Your task to perform on an android device: find snoozed emails in the gmail app Image 0: 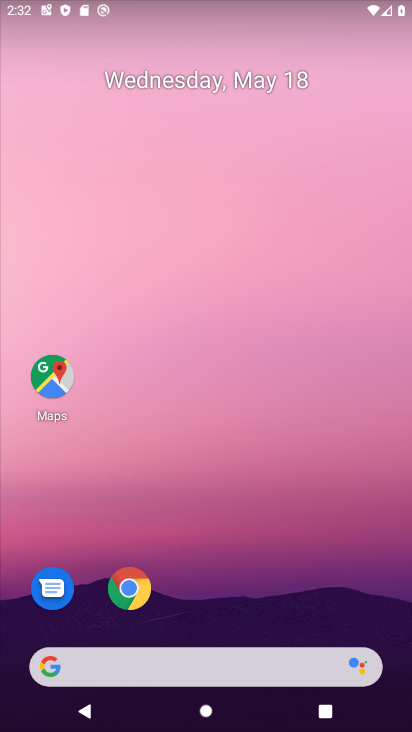
Step 0: drag from (344, 627) to (323, 145)
Your task to perform on an android device: find snoozed emails in the gmail app Image 1: 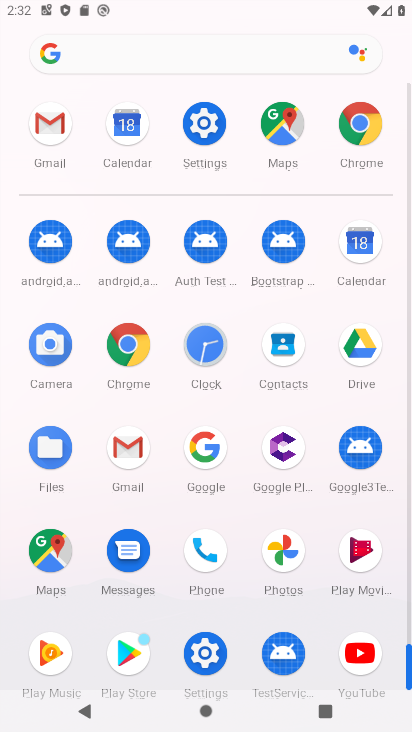
Step 1: click (125, 453)
Your task to perform on an android device: find snoozed emails in the gmail app Image 2: 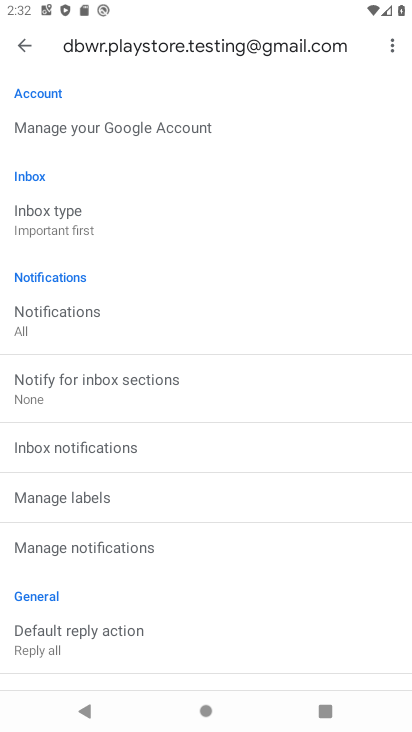
Step 2: drag from (332, 584) to (317, 388)
Your task to perform on an android device: find snoozed emails in the gmail app Image 3: 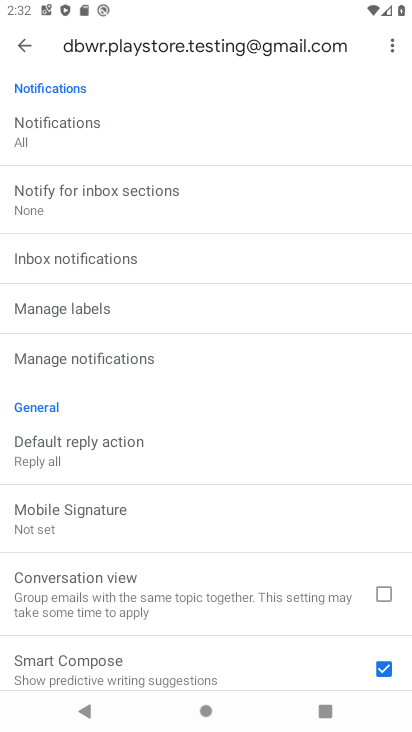
Step 3: drag from (293, 614) to (301, 376)
Your task to perform on an android device: find snoozed emails in the gmail app Image 4: 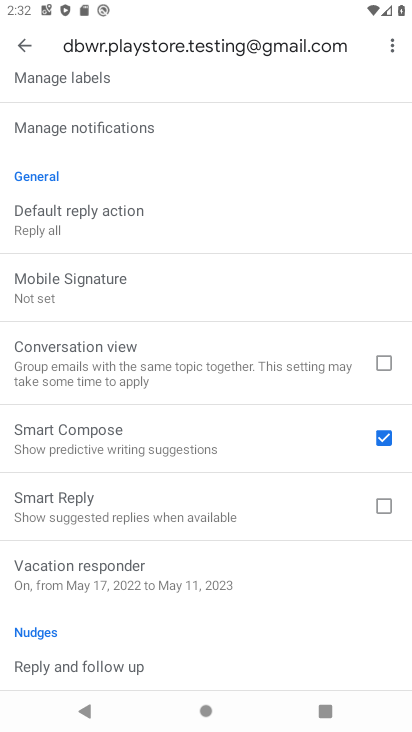
Step 4: drag from (273, 586) to (289, 420)
Your task to perform on an android device: find snoozed emails in the gmail app Image 5: 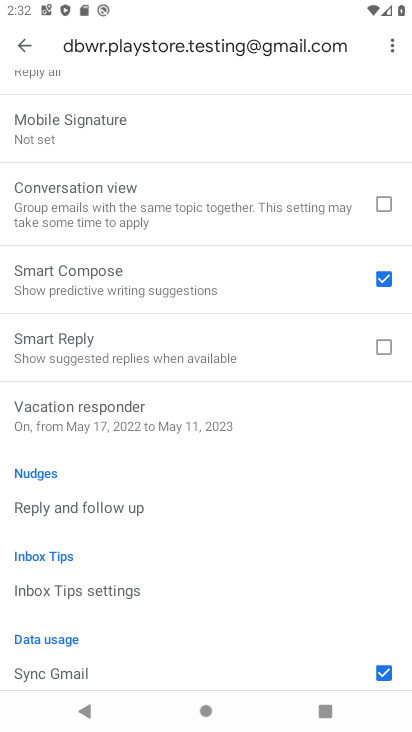
Step 5: drag from (283, 595) to (303, 415)
Your task to perform on an android device: find snoozed emails in the gmail app Image 6: 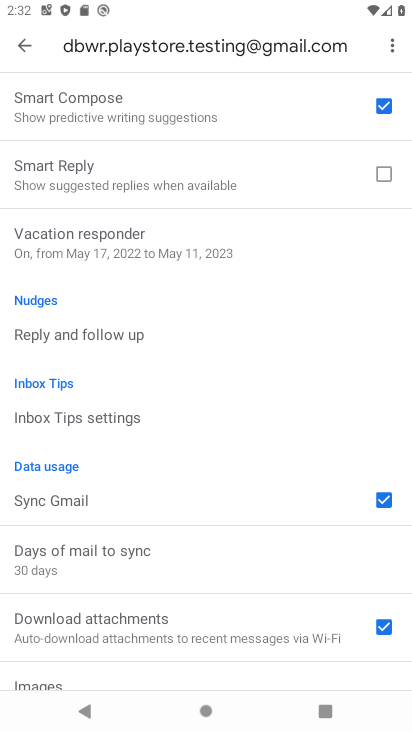
Step 6: drag from (281, 588) to (280, 417)
Your task to perform on an android device: find snoozed emails in the gmail app Image 7: 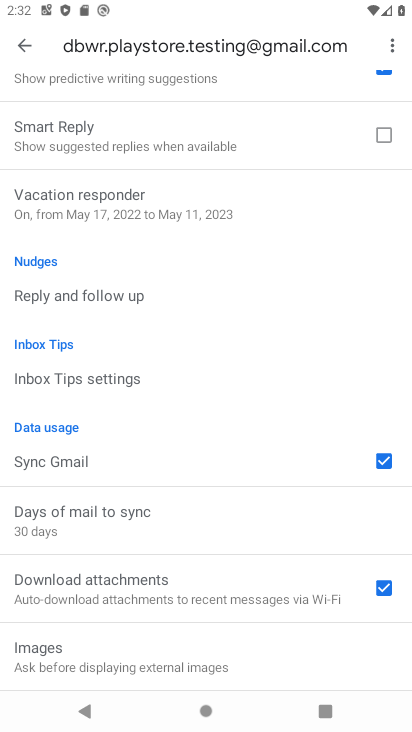
Step 7: drag from (297, 578) to (285, 428)
Your task to perform on an android device: find snoozed emails in the gmail app Image 8: 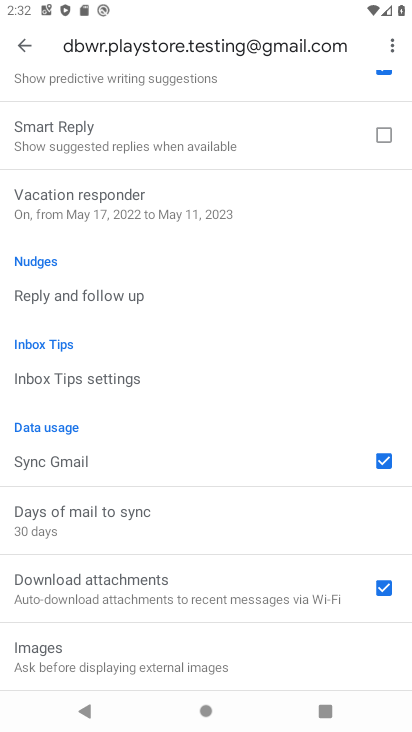
Step 8: drag from (307, 321) to (285, 462)
Your task to perform on an android device: find snoozed emails in the gmail app Image 9: 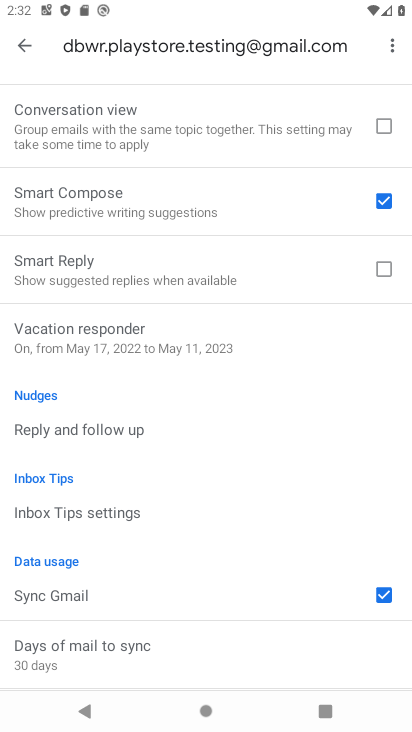
Step 9: click (21, 52)
Your task to perform on an android device: find snoozed emails in the gmail app Image 10: 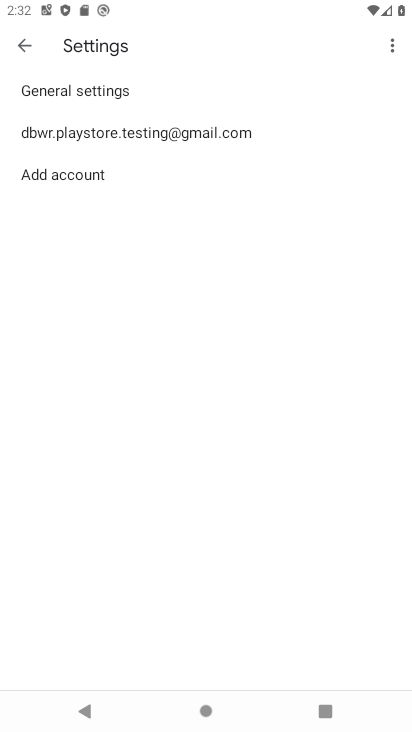
Step 10: click (14, 41)
Your task to perform on an android device: find snoozed emails in the gmail app Image 11: 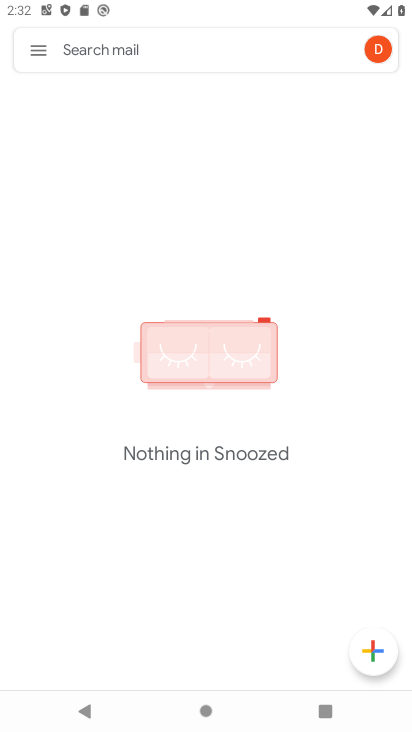
Step 11: click (39, 53)
Your task to perform on an android device: find snoozed emails in the gmail app Image 12: 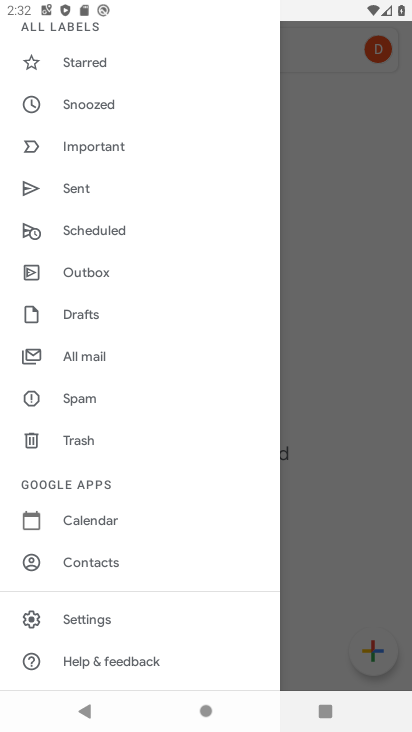
Step 12: drag from (224, 249) to (204, 414)
Your task to perform on an android device: find snoozed emails in the gmail app Image 13: 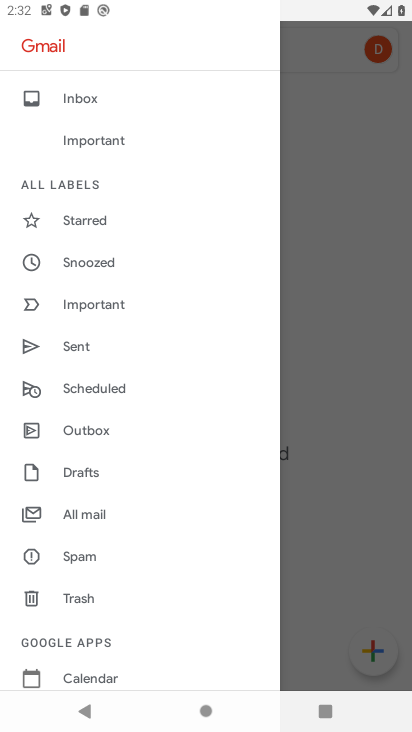
Step 13: drag from (195, 185) to (182, 371)
Your task to perform on an android device: find snoozed emails in the gmail app Image 14: 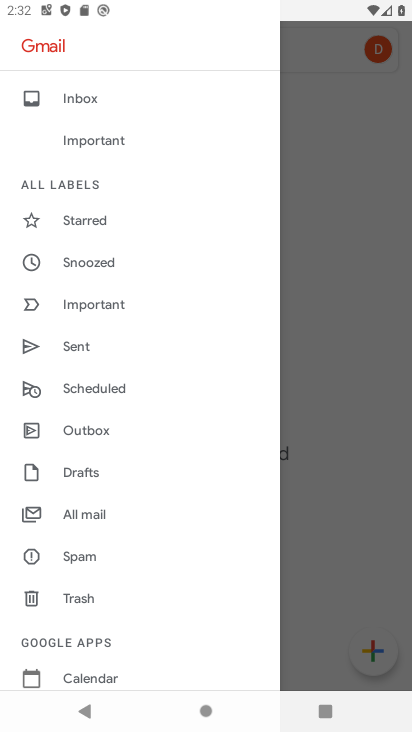
Step 14: click (94, 254)
Your task to perform on an android device: find snoozed emails in the gmail app Image 15: 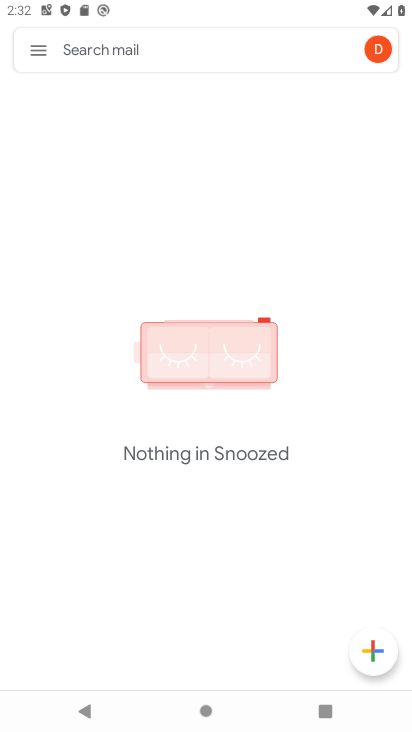
Step 15: task complete